Your task to perform on an android device: Show me productivity apps on the Play Store Image 0: 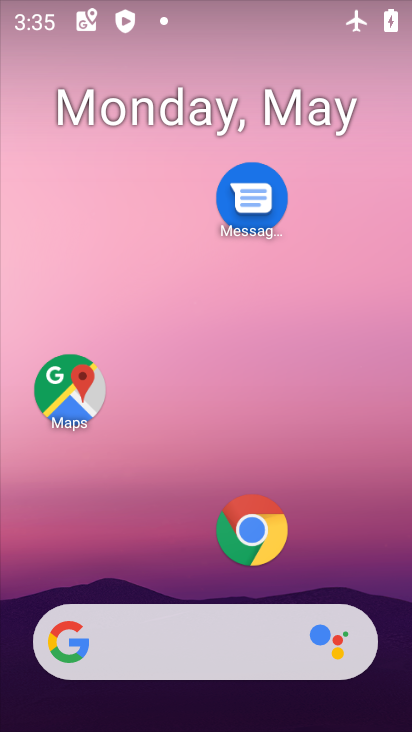
Step 0: drag from (172, 565) to (191, 158)
Your task to perform on an android device: Show me productivity apps on the Play Store Image 1: 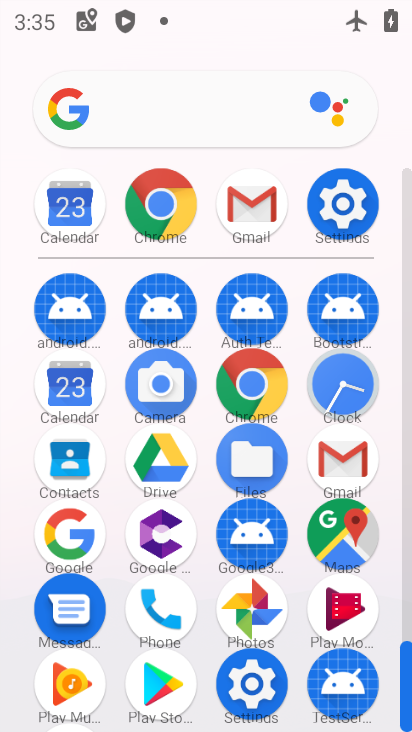
Step 1: click (157, 661)
Your task to perform on an android device: Show me productivity apps on the Play Store Image 2: 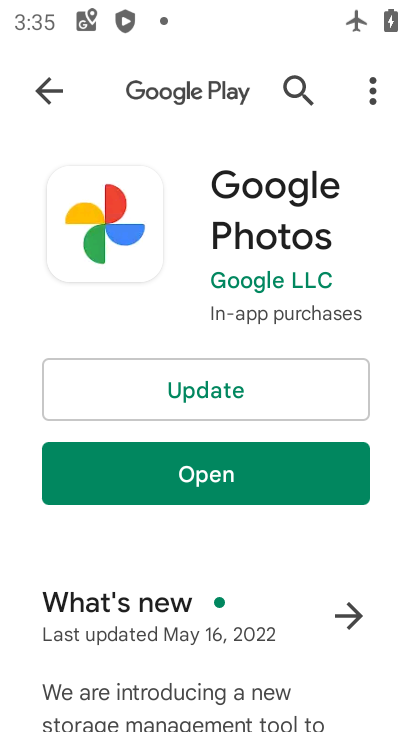
Step 2: click (45, 93)
Your task to perform on an android device: Show me productivity apps on the Play Store Image 3: 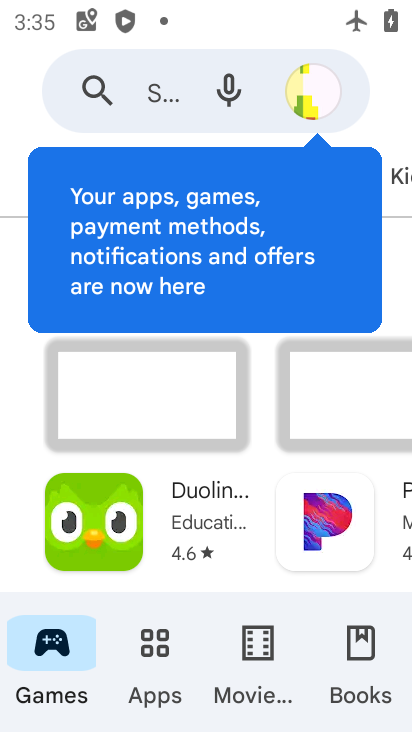
Step 3: click (147, 675)
Your task to perform on an android device: Show me productivity apps on the Play Store Image 4: 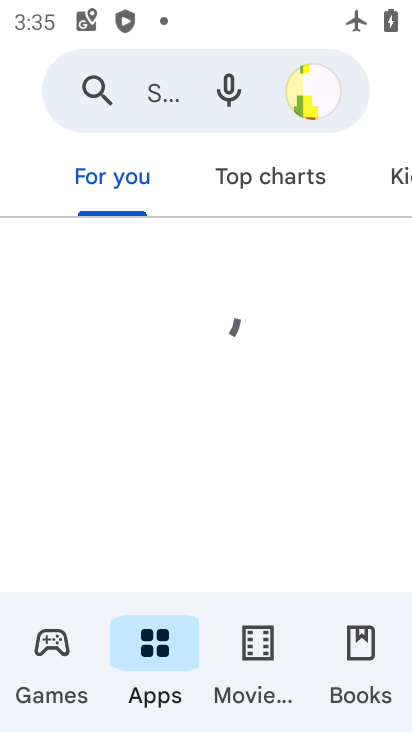
Step 4: drag from (201, 534) to (269, 78)
Your task to perform on an android device: Show me productivity apps on the Play Store Image 5: 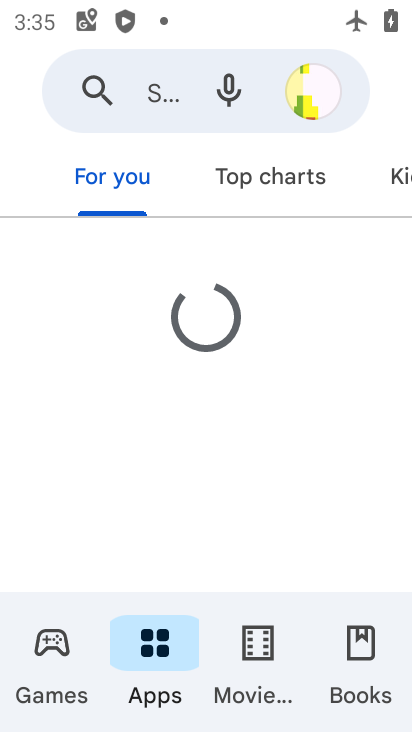
Step 5: drag from (343, 18) to (326, 568)
Your task to perform on an android device: Show me productivity apps on the Play Store Image 6: 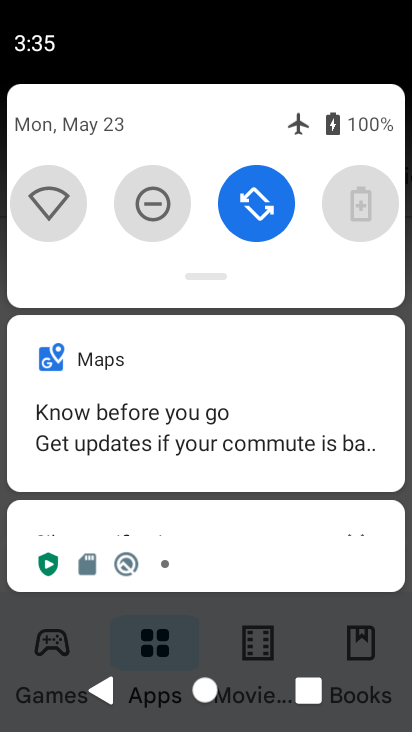
Step 6: drag from (199, 287) to (169, 685)
Your task to perform on an android device: Show me productivity apps on the Play Store Image 7: 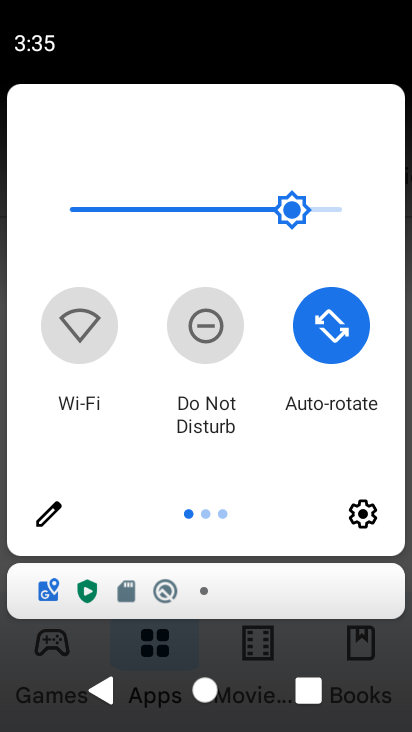
Step 7: drag from (328, 342) to (37, 345)
Your task to perform on an android device: Show me productivity apps on the Play Store Image 8: 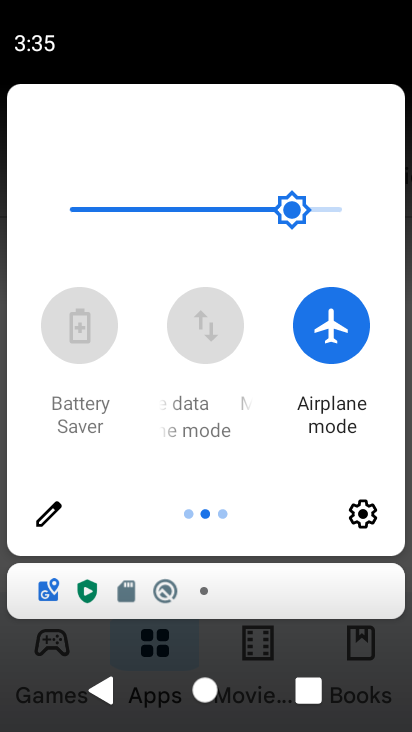
Step 8: click (339, 333)
Your task to perform on an android device: Show me productivity apps on the Play Store Image 9: 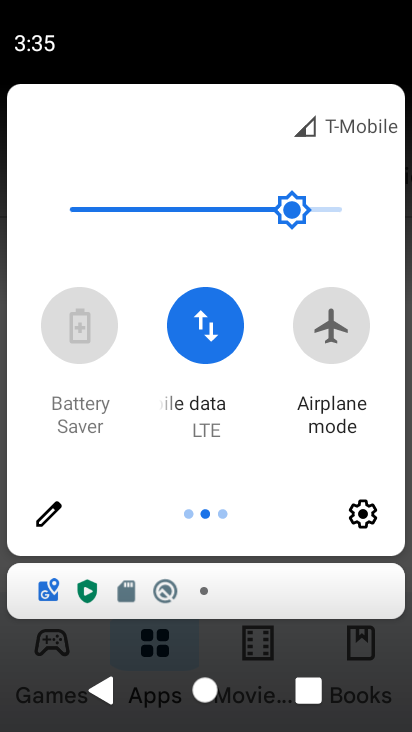
Step 9: click (128, 640)
Your task to perform on an android device: Show me productivity apps on the Play Store Image 10: 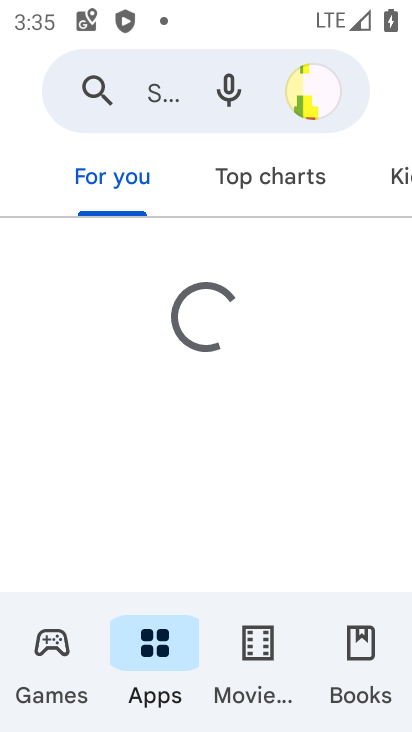
Step 10: drag from (213, 500) to (223, 211)
Your task to perform on an android device: Show me productivity apps on the Play Store Image 11: 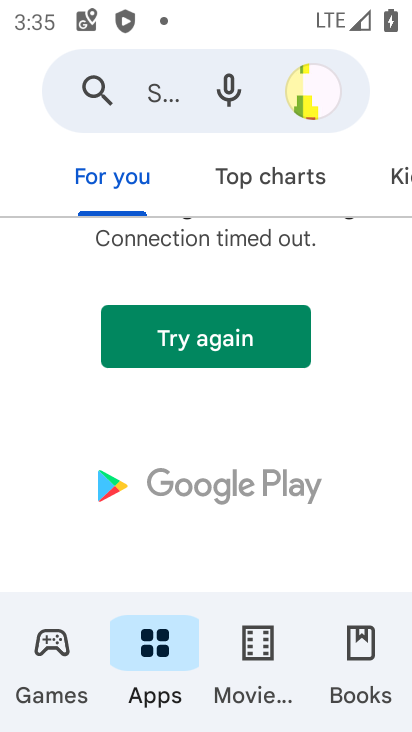
Step 11: click (206, 360)
Your task to perform on an android device: Show me productivity apps on the Play Store Image 12: 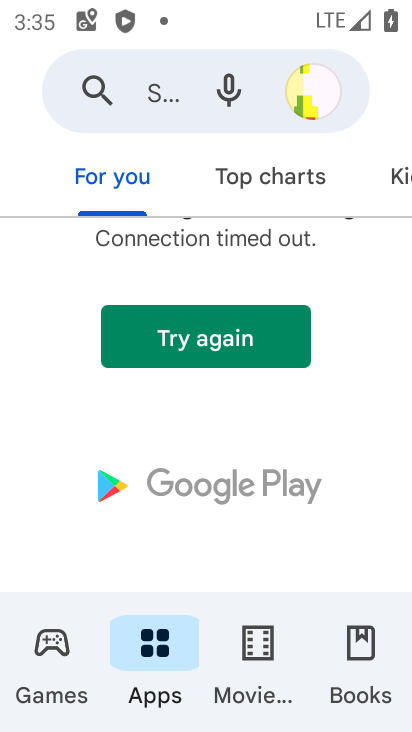
Step 12: click (212, 334)
Your task to perform on an android device: Show me productivity apps on the Play Store Image 13: 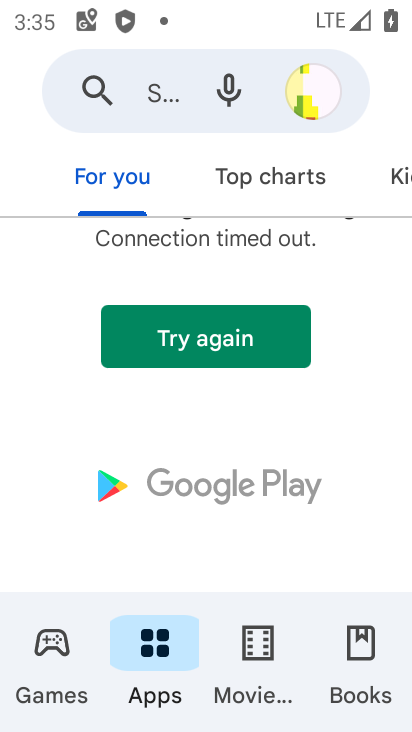
Step 13: click (46, 659)
Your task to perform on an android device: Show me productivity apps on the Play Store Image 14: 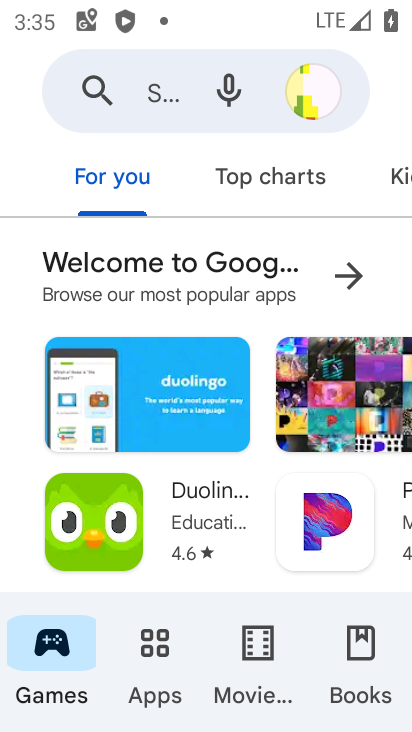
Step 14: click (143, 651)
Your task to perform on an android device: Show me productivity apps on the Play Store Image 15: 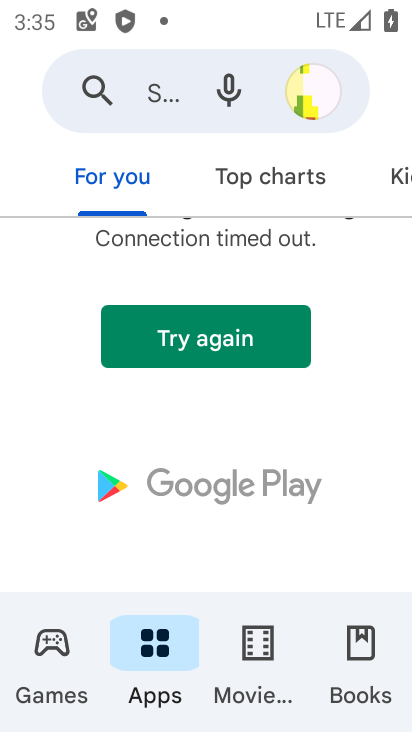
Step 15: drag from (255, 545) to (339, 95)
Your task to perform on an android device: Show me productivity apps on the Play Store Image 16: 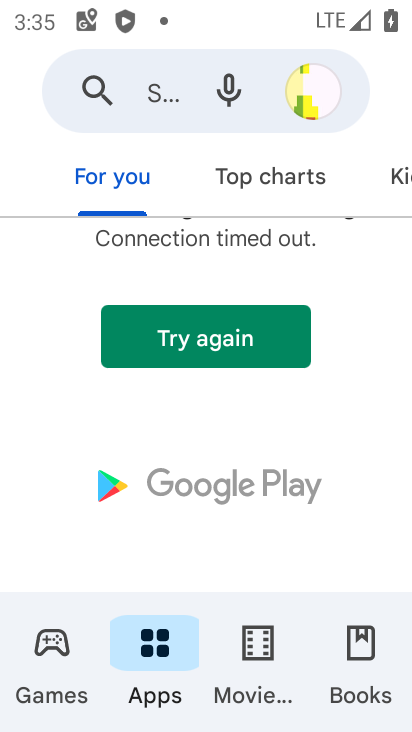
Step 16: click (269, 173)
Your task to perform on an android device: Show me productivity apps on the Play Store Image 17: 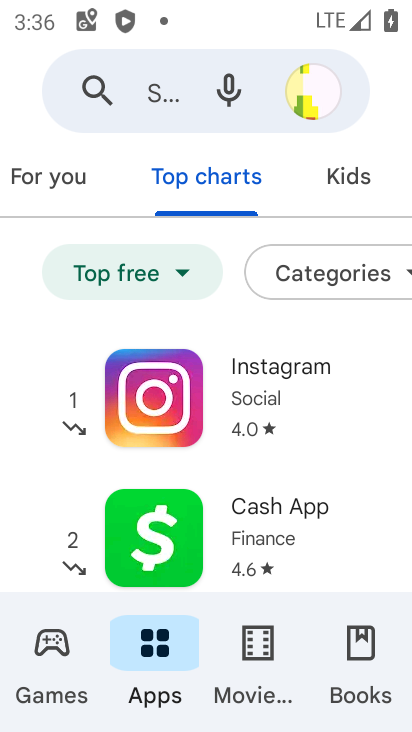
Step 17: click (54, 175)
Your task to perform on an android device: Show me productivity apps on the Play Store Image 18: 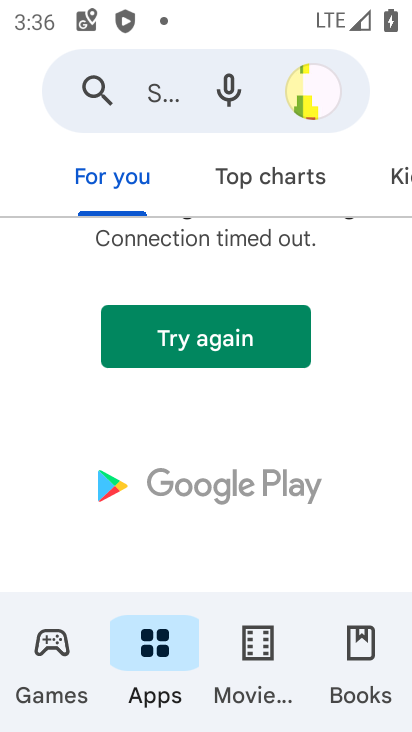
Step 18: drag from (226, 258) to (226, 619)
Your task to perform on an android device: Show me productivity apps on the Play Store Image 19: 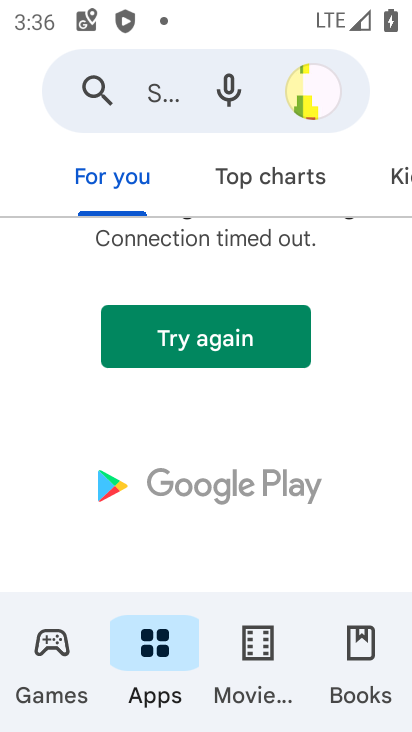
Step 19: click (217, 353)
Your task to perform on an android device: Show me productivity apps on the Play Store Image 20: 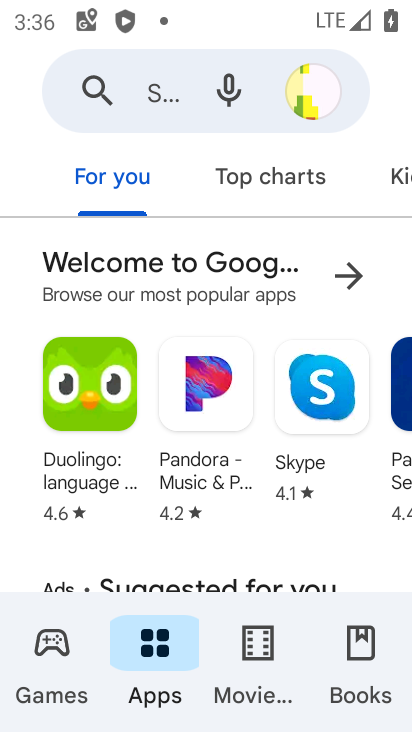
Step 20: drag from (205, 540) to (264, 130)
Your task to perform on an android device: Show me productivity apps on the Play Store Image 21: 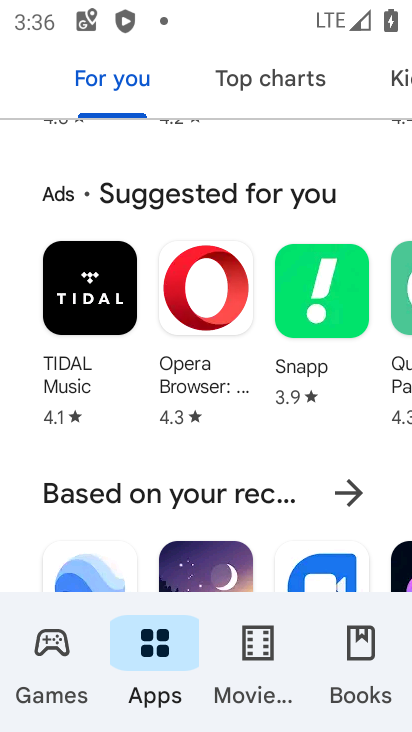
Step 21: drag from (293, 500) to (298, 101)
Your task to perform on an android device: Show me productivity apps on the Play Store Image 22: 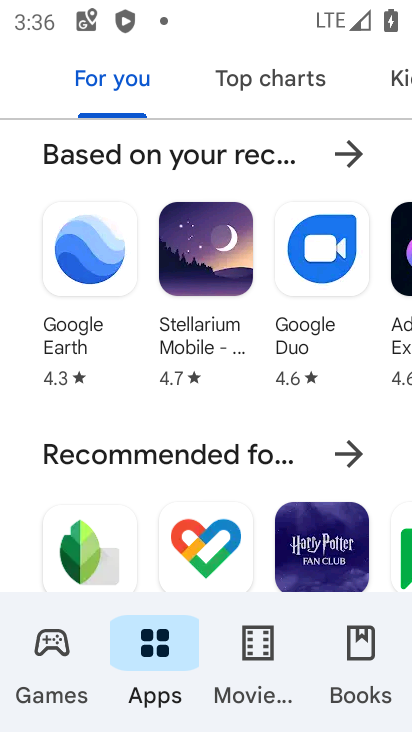
Step 22: drag from (220, 512) to (293, 108)
Your task to perform on an android device: Show me productivity apps on the Play Store Image 23: 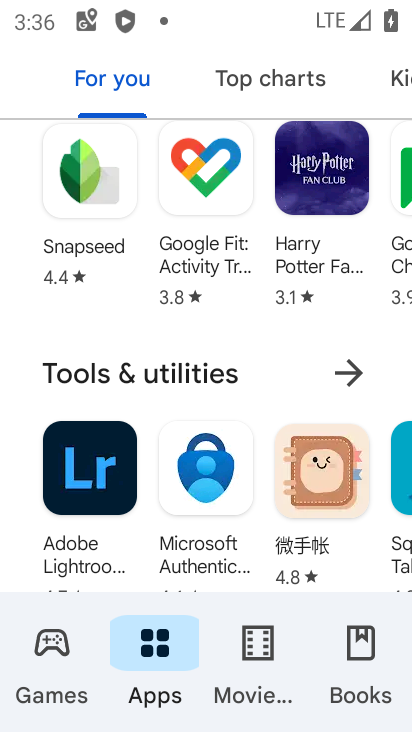
Step 23: drag from (254, 564) to (303, 54)
Your task to perform on an android device: Show me productivity apps on the Play Store Image 24: 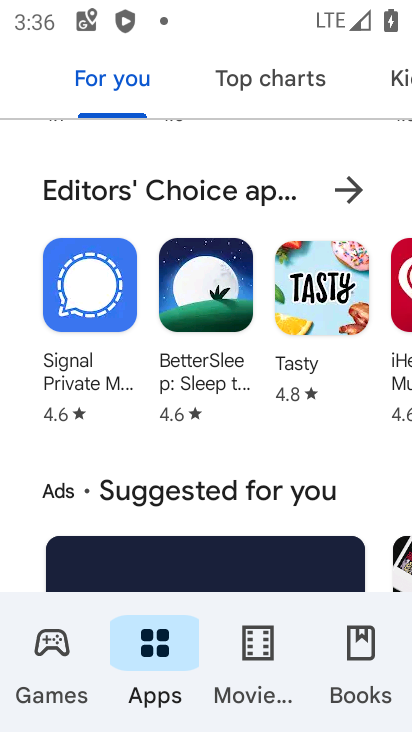
Step 24: drag from (226, 541) to (316, 35)
Your task to perform on an android device: Show me productivity apps on the Play Store Image 25: 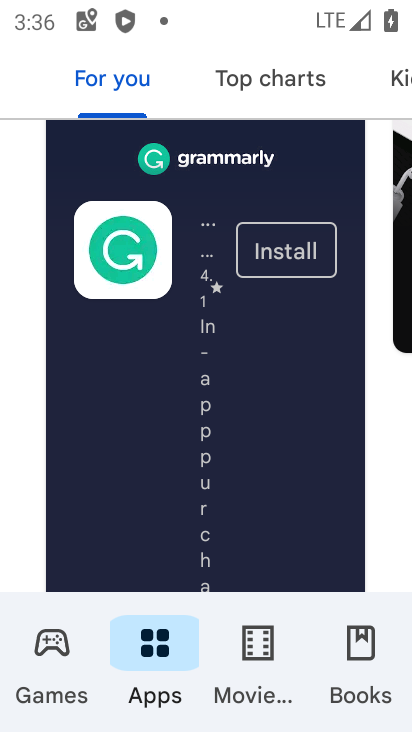
Step 25: drag from (180, 462) to (256, 67)
Your task to perform on an android device: Show me productivity apps on the Play Store Image 26: 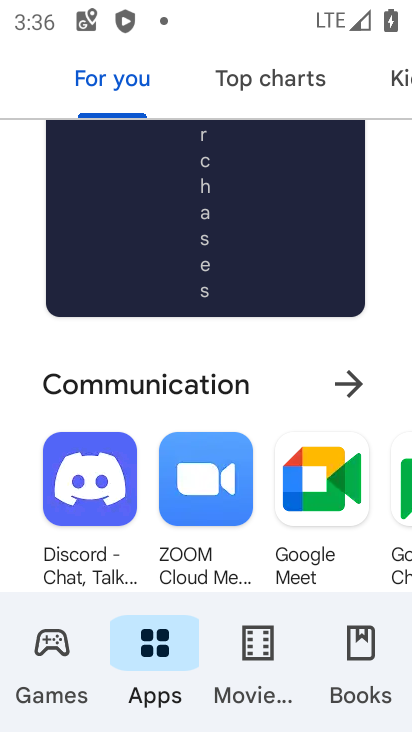
Step 26: drag from (197, 425) to (289, 54)
Your task to perform on an android device: Show me productivity apps on the Play Store Image 27: 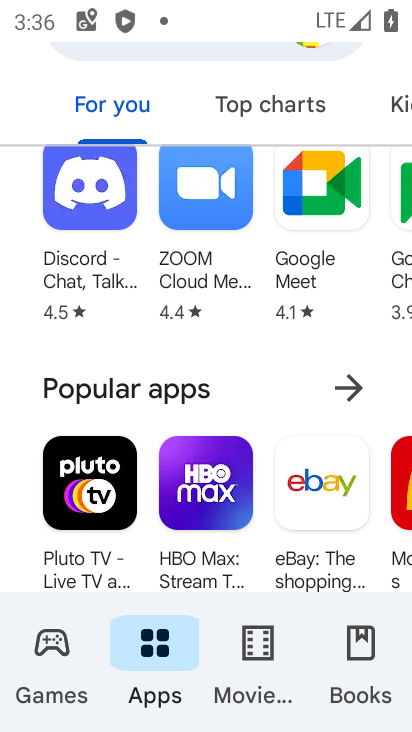
Step 27: drag from (217, 482) to (290, 75)
Your task to perform on an android device: Show me productivity apps on the Play Store Image 28: 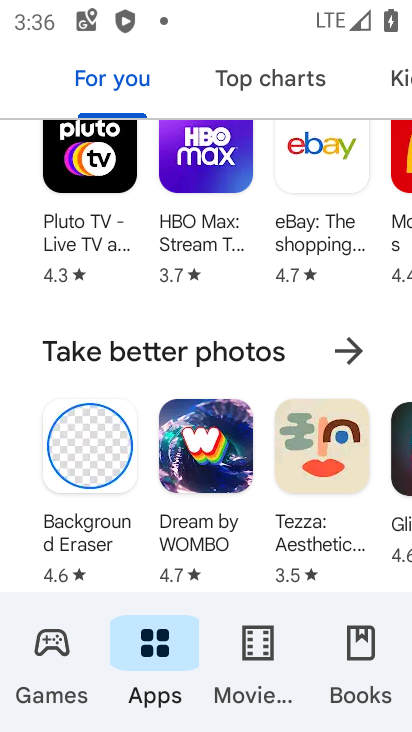
Step 28: drag from (236, 409) to (293, 79)
Your task to perform on an android device: Show me productivity apps on the Play Store Image 29: 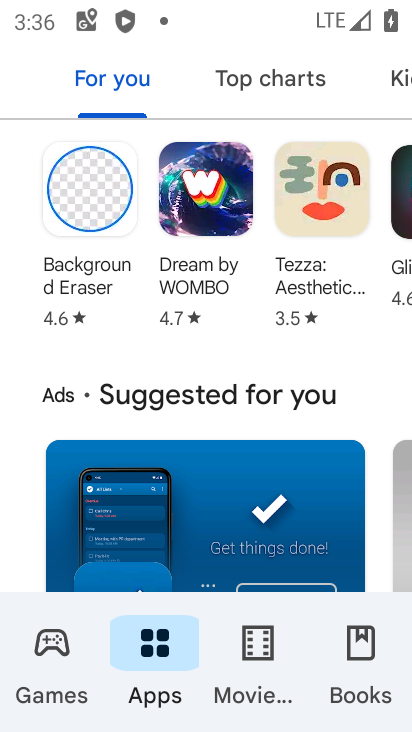
Step 29: drag from (225, 514) to (249, 150)
Your task to perform on an android device: Show me productivity apps on the Play Store Image 30: 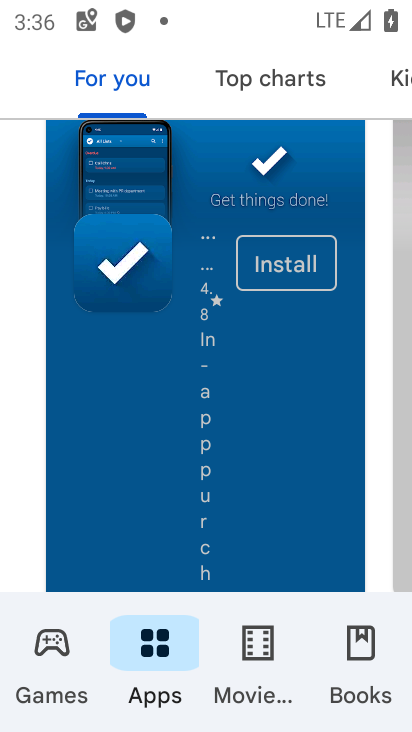
Step 30: drag from (132, 513) to (238, 58)
Your task to perform on an android device: Show me productivity apps on the Play Store Image 31: 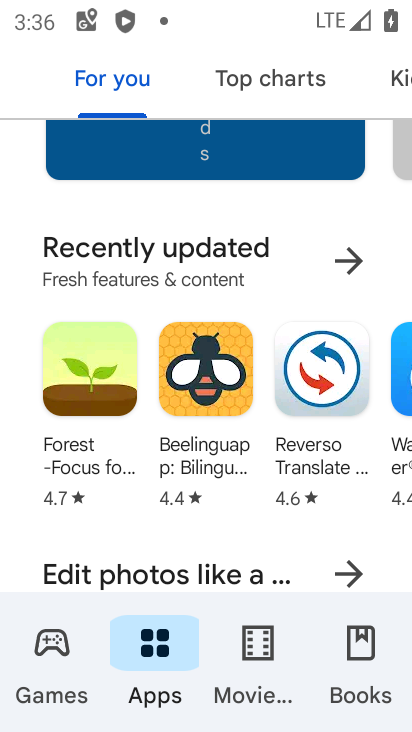
Step 31: drag from (148, 562) to (265, 78)
Your task to perform on an android device: Show me productivity apps on the Play Store Image 32: 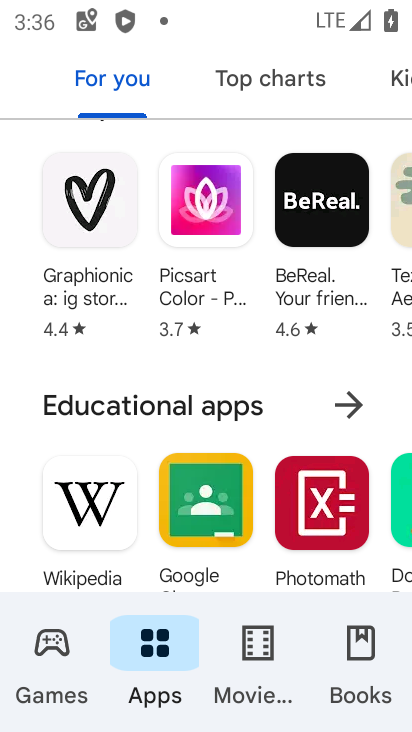
Step 32: drag from (191, 567) to (325, 22)
Your task to perform on an android device: Show me productivity apps on the Play Store Image 33: 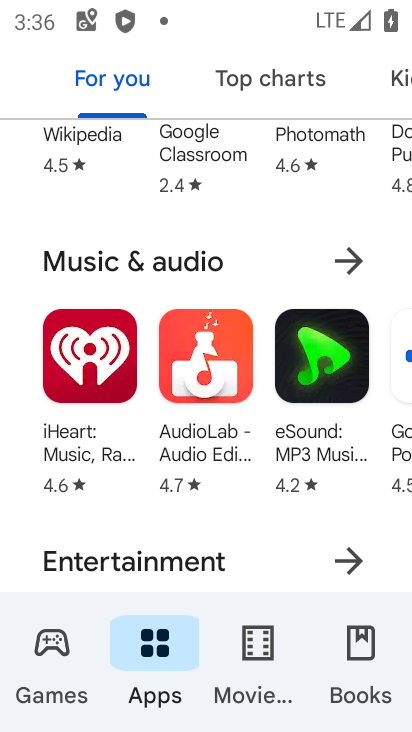
Step 33: drag from (268, 452) to (347, 11)
Your task to perform on an android device: Show me productivity apps on the Play Store Image 34: 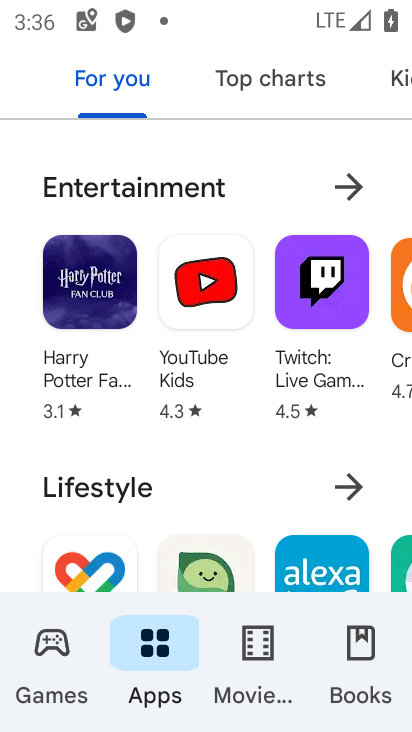
Step 34: drag from (234, 510) to (385, 5)
Your task to perform on an android device: Show me productivity apps on the Play Store Image 35: 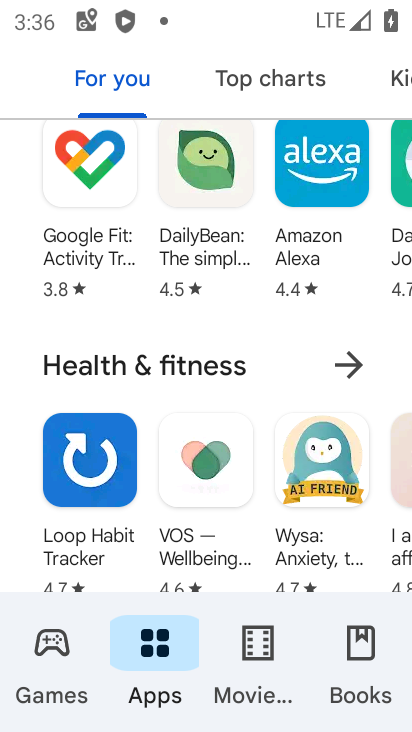
Step 35: drag from (191, 538) to (343, 38)
Your task to perform on an android device: Show me productivity apps on the Play Store Image 36: 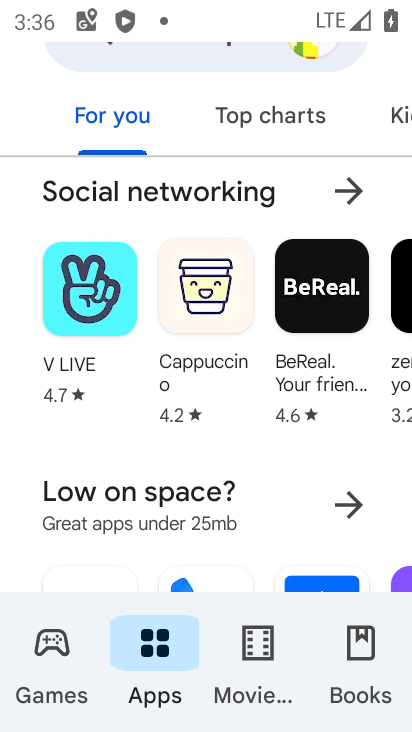
Step 36: drag from (146, 589) to (278, 62)
Your task to perform on an android device: Show me productivity apps on the Play Store Image 37: 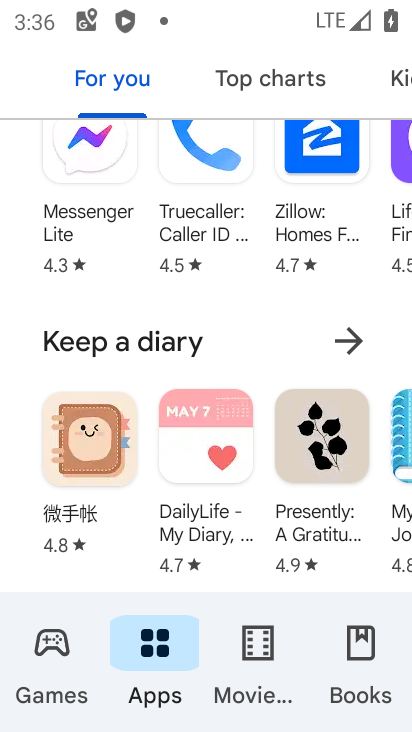
Step 37: drag from (125, 563) to (275, 0)
Your task to perform on an android device: Show me productivity apps on the Play Store Image 38: 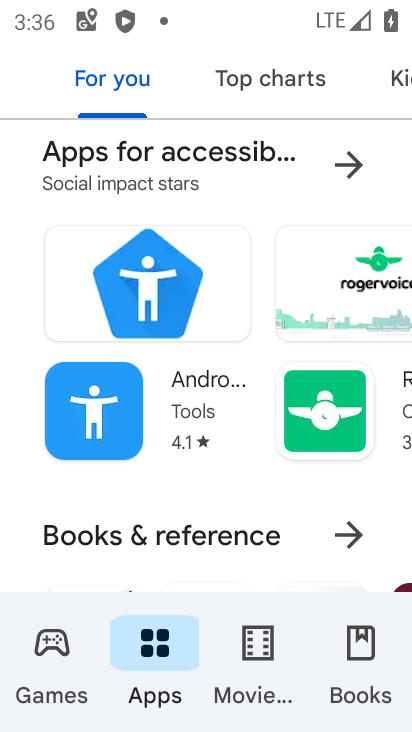
Step 38: drag from (181, 514) to (314, 7)
Your task to perform on an android device: Show me productivity apps on the Play Store Image 39: 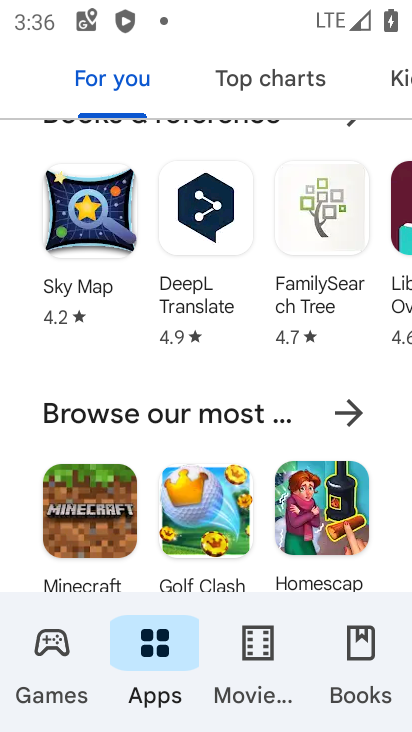
Step 39: drag from (157, 475) to (239, 8)
Your task to perform on an android device: Show me productivity apps on the Play Store Image 40: 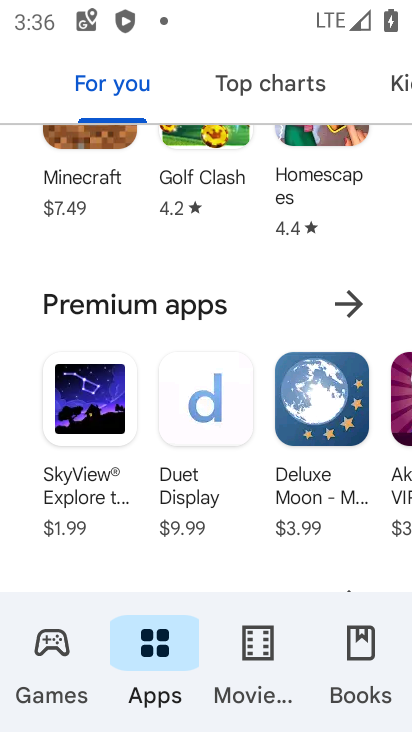
Step 40: drag from (207, 429) to (320, 30)
Your task to perform on an android device: Show me productivity apps on the Play Store Image 41: 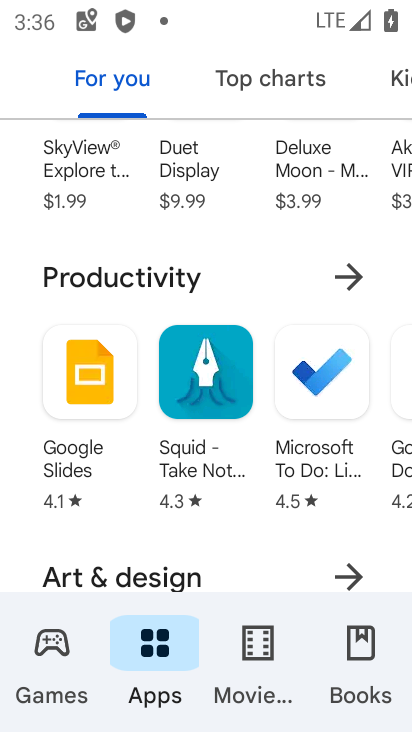
Step 41: click (355, 266)
Your task to perform on an android device: Show me productivity apps on the Play Store Image 42: 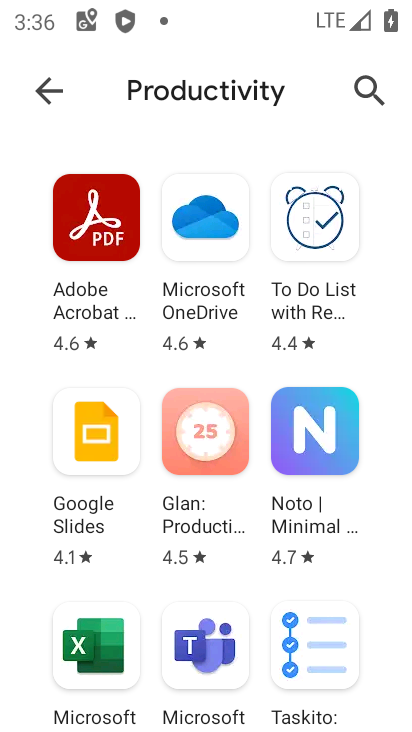
Step 42: task complete